Your task to perform on an android device: delete the emails in spam in the gmail app Image 0: 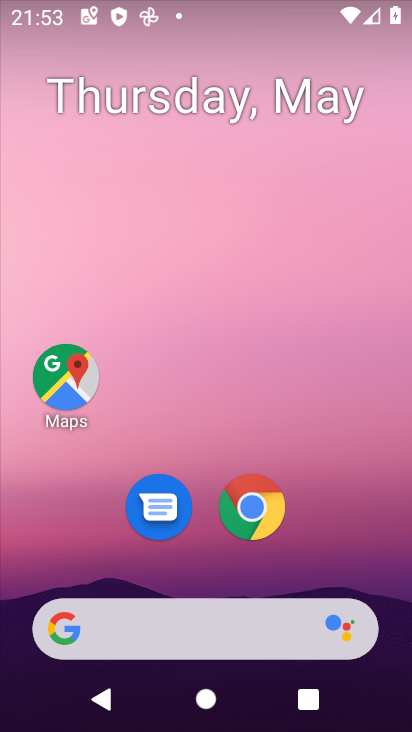
Step 0: drag from (265, 646) to (399, 136)
Your task to perform on an android device: delete the emails in spam in the gmail app Image 1: 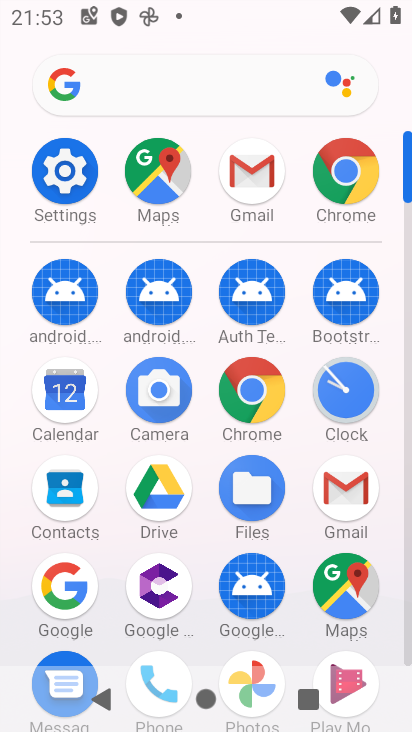
Step 1: click (229, 189)
Your task to perform on an android device: delete the emails in spam in the gmail app Image 2: 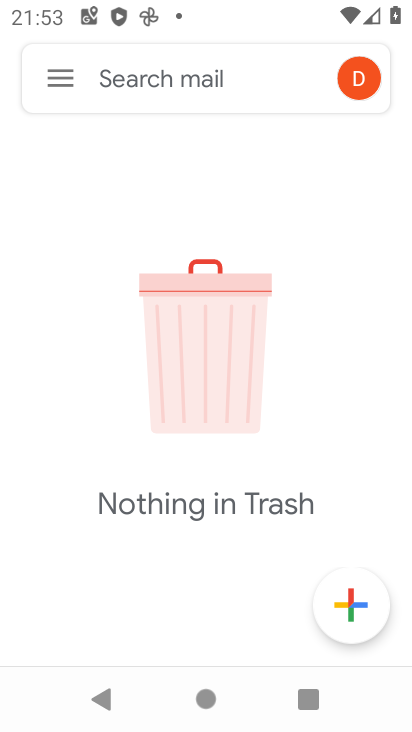
Step 2: click (72, 82)
Your task to perform on an android device: delete the emails in spam in the gmail app Image 3: 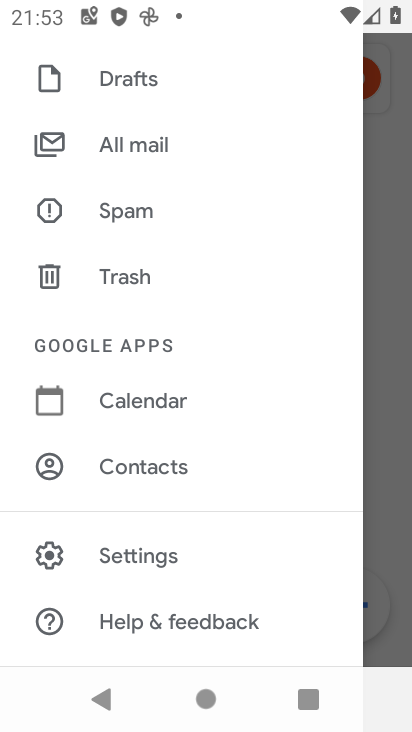
Step 3: click (133, 214)
Your task to perform on an android device: delete the emails in spam in the gmail app Image 4: 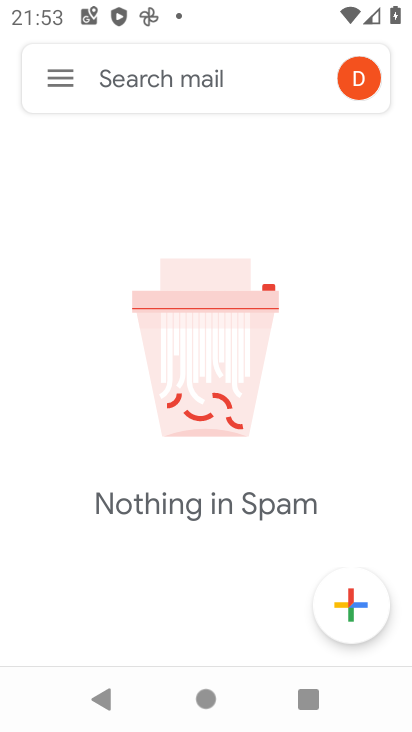
Step 4: task complete